Your task to perform on an android device: change text size in settings app Image 0: 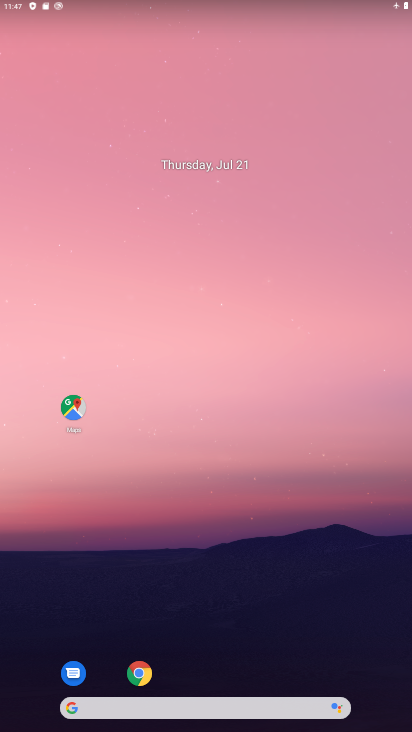
Step 0: drag from (188, 640) to (205, 297)
Your task to perform on an android device: change text size in settings app Image 1: 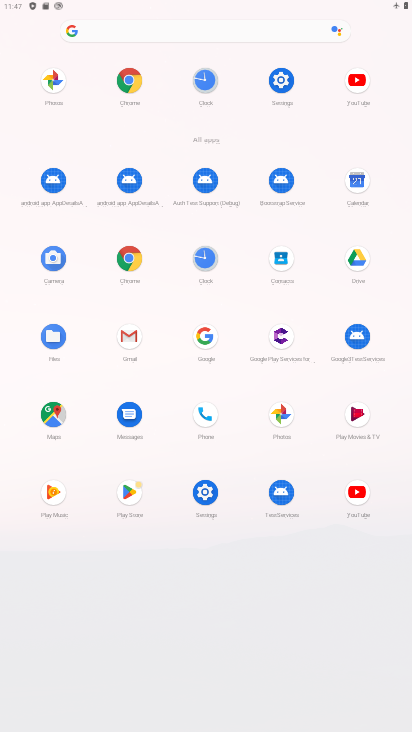
Step 1: click (206, 487)
Your task to perform on an android device: change text size in settings app Image 2: 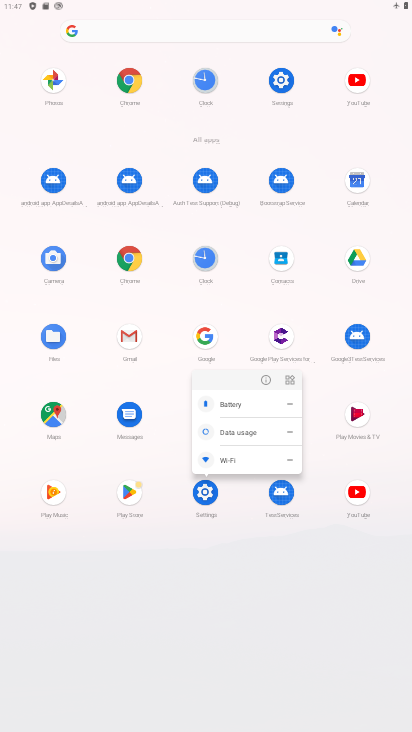
Step 2: click (261, 377)
Your task to perform on an android device: change text size in settings app Image 3: 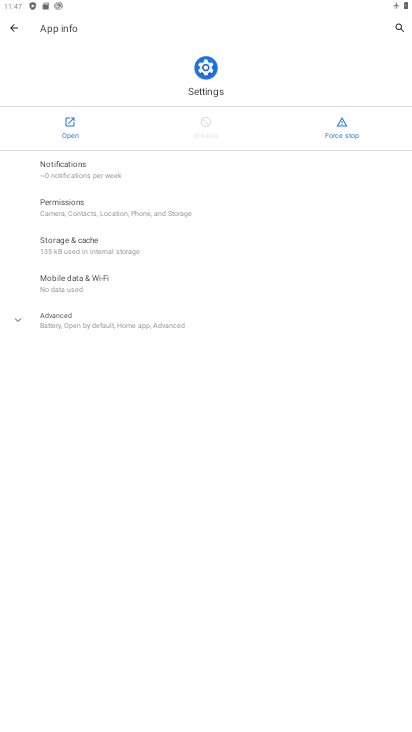
Step 3: click (63, 137)
Your task to perform on an android device: change text size in settings app Image 4: 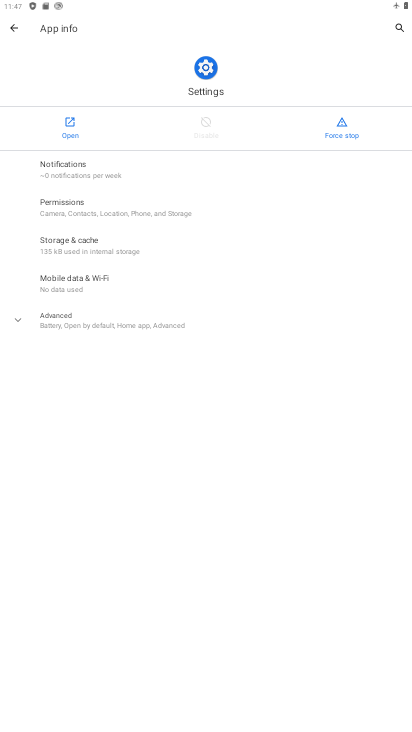
Step 4: click (64, 136)
Your task to perform on an android device: change text size in settings app Image 5: 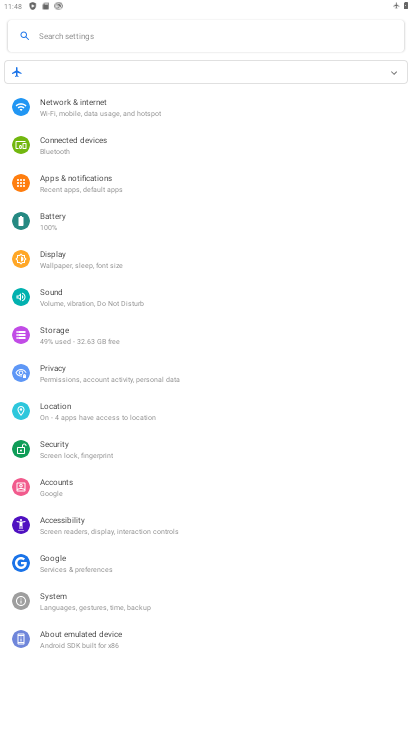
Step 5: drag from (256, 403) to (273, 245)
Your task to perform on an android device: change text size in settings app Image 6: 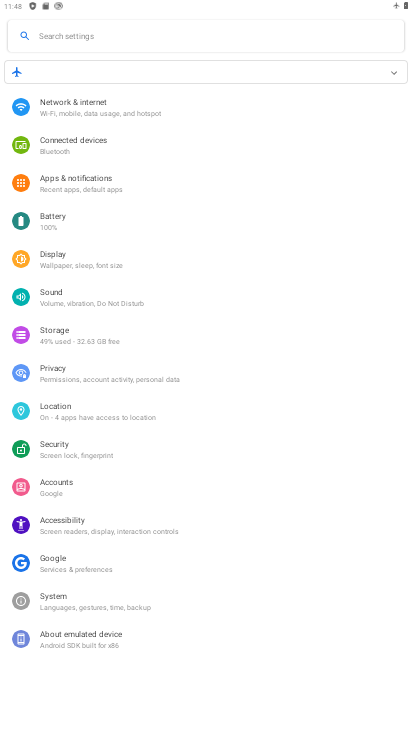
Step 6: click (104, 23)
Your task to perform on an android device: change text size in settings app Image 7: 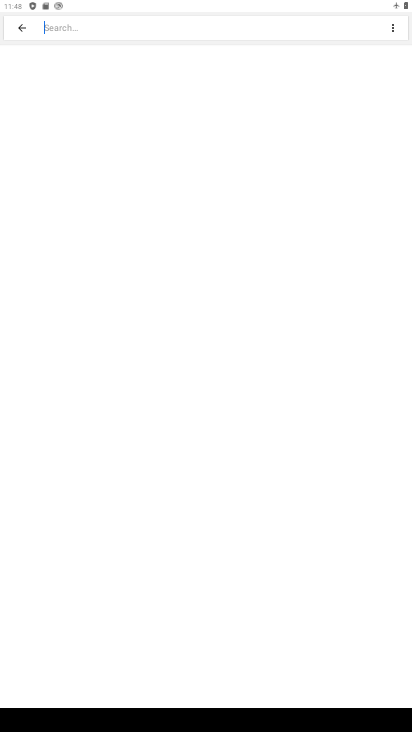
Step 7: click (15, 32)
Your task to perform on an android device: change text size in settings app Image 8: 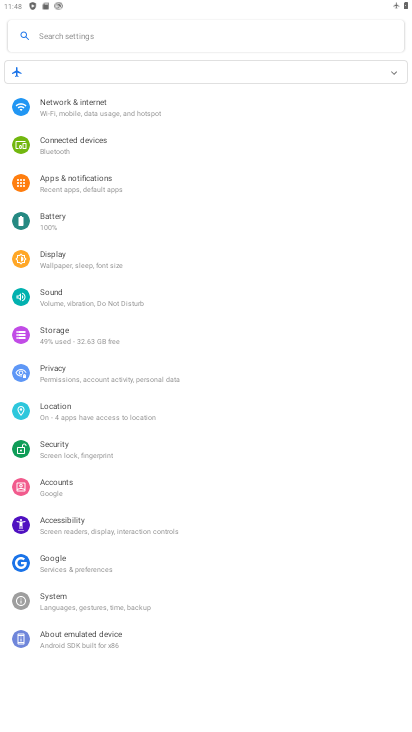
Step 8: click (78, 251)
Your task to perform on an android device: change text size in settings app Image 9: 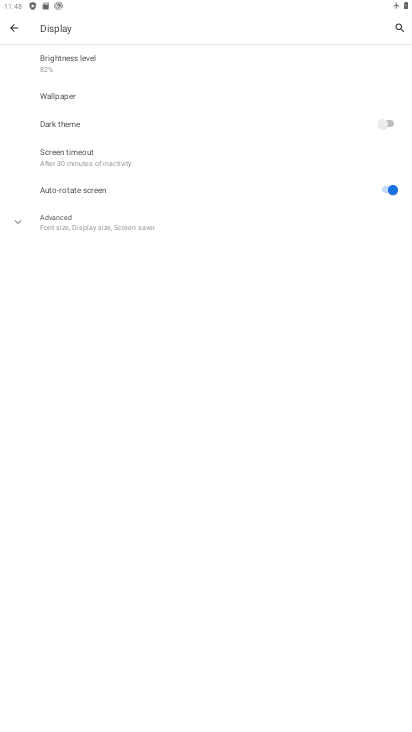
Step 9: click (131, 222)
Your task to perform on an android device: change text size in settings app Image 10: 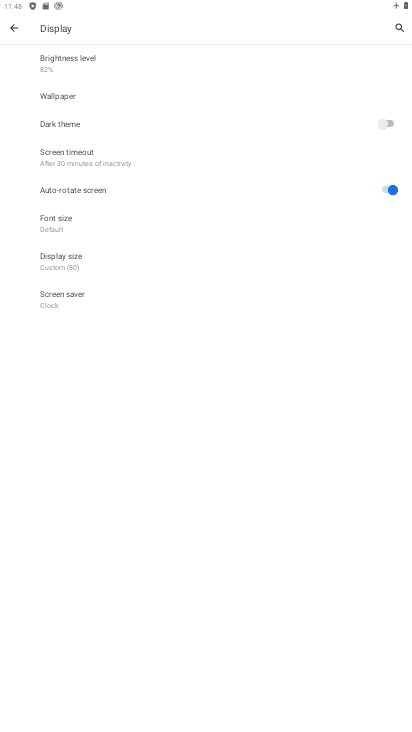
Step 10: click (124, 219)
Your task to perform on an android device: change text size in settings app Image 11: 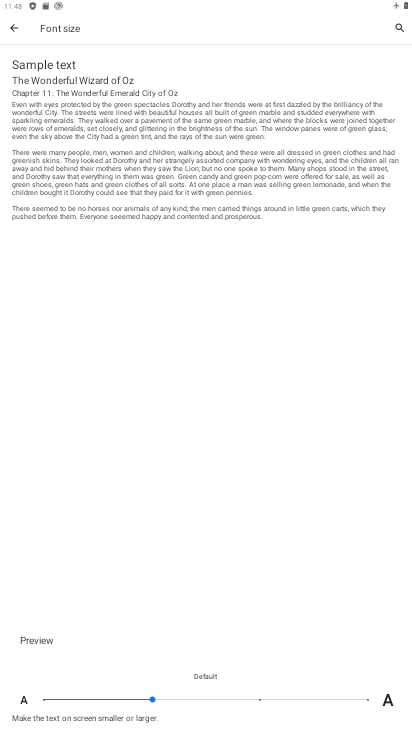
Step 11: click (354, 698)
Your task to perform on an android device: change text size in settings app Image 12: 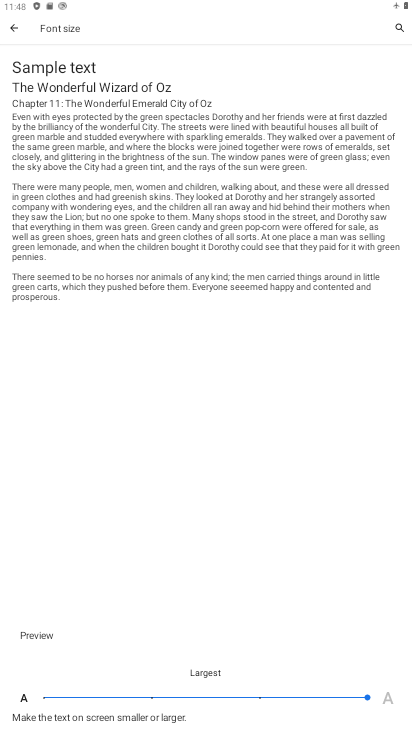
Step 12: task complete